Your task to perform on an android device: Check the weather Image 0: 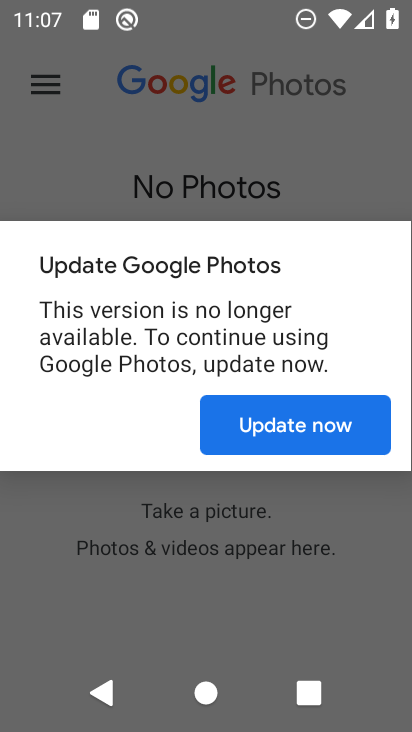
Step 0: press home button
Your task to perform on an android device: Check the weather Image 1: 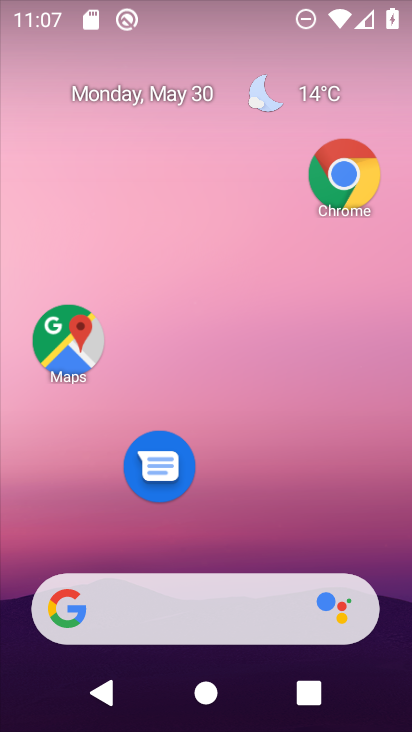
Step 1: click (205, 616)
Your task to perform on an android device: Check the weather Image 2: 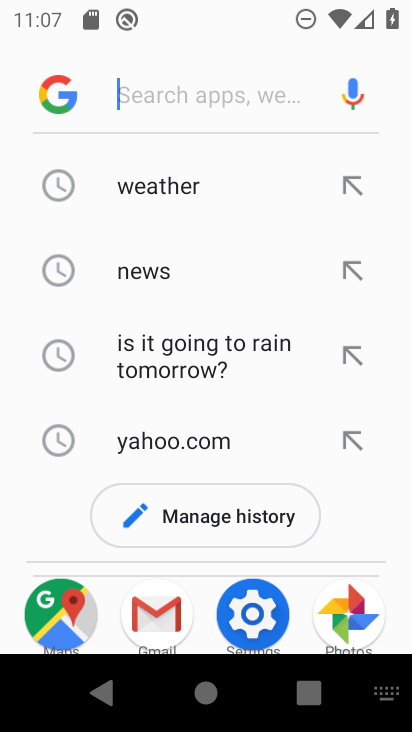
Step 2: click (155, 192)
Your task to perform on an android device: Check the weather Image 3: 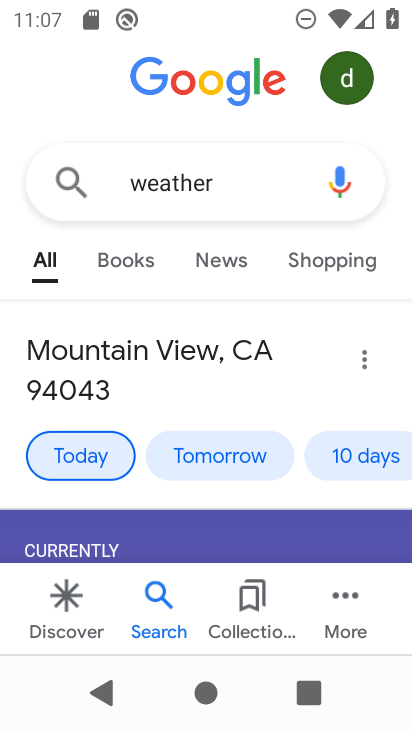
Step 3: task complete